Your task to perform on an android device: turn notification dots on Image 0: 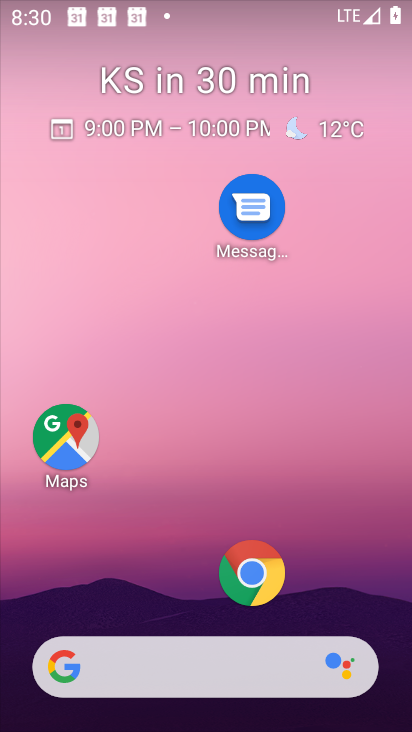
Step 0: drag from (153, 590) to (137, 59)
Your task to perform on an android device: turn notification dots on Image 1: 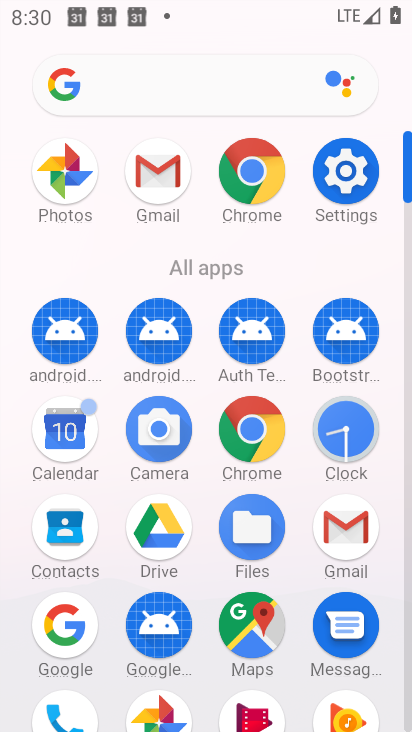
Step 1: click (350, 176)
Your task to perform on an android device: turn notification dots on Image 2: 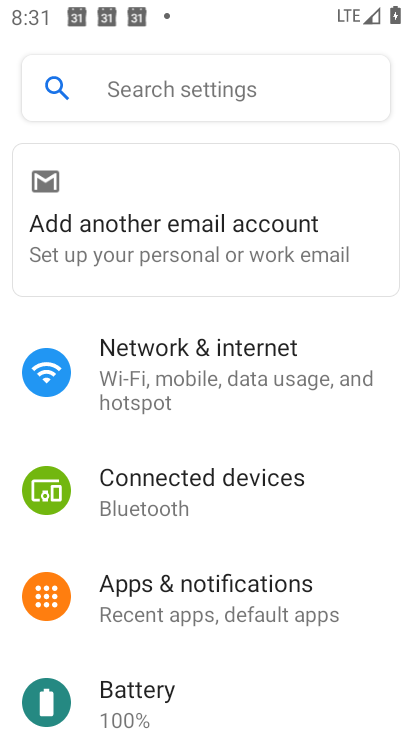
Step 2: drag from (230, 595) to (227, 427)
Your task to perform on an android device: turn notification dots on Image 3: 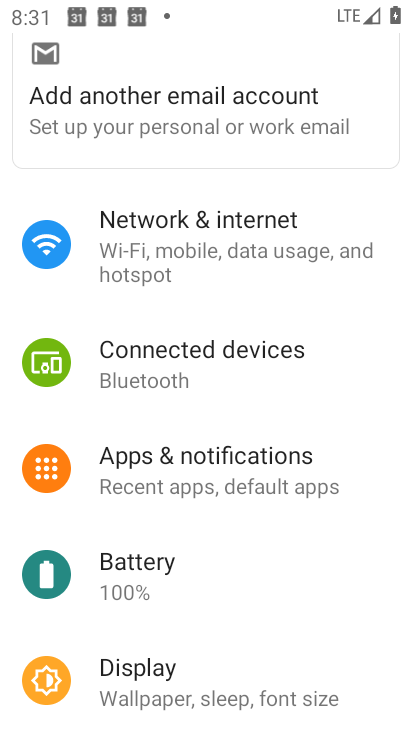
Step 3: click (202, 465)
Your task to perform on an android device: turn notification dots on Image 4: 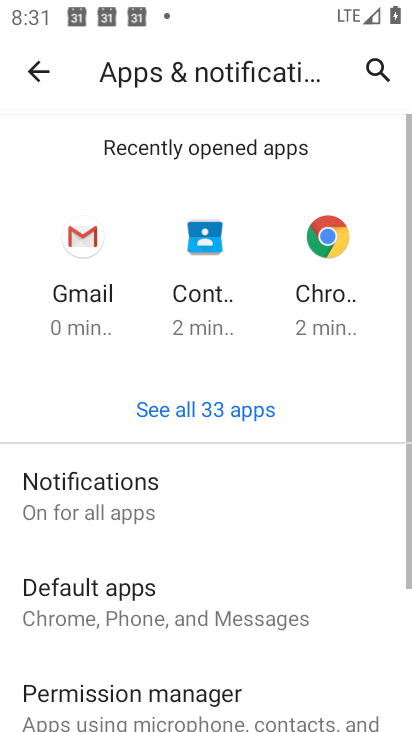
Step 4: drag from (240, 637) to (283, 189)
Your task to perform on an android device: turn notification dots on Image 5: 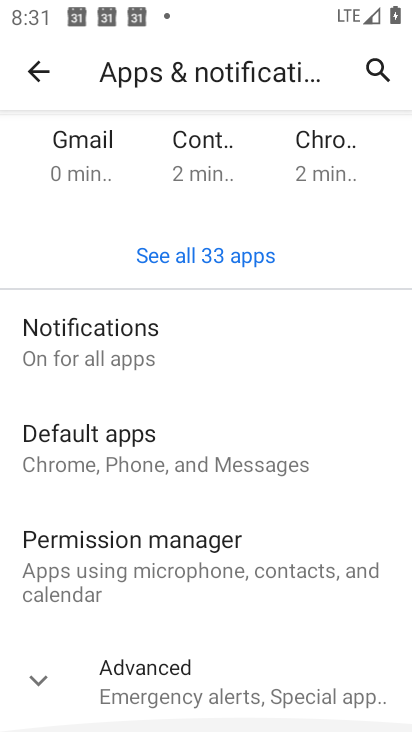
Step 5: click (148, 327)
Your task to perform on an android device: turn notification dots on Image 6: 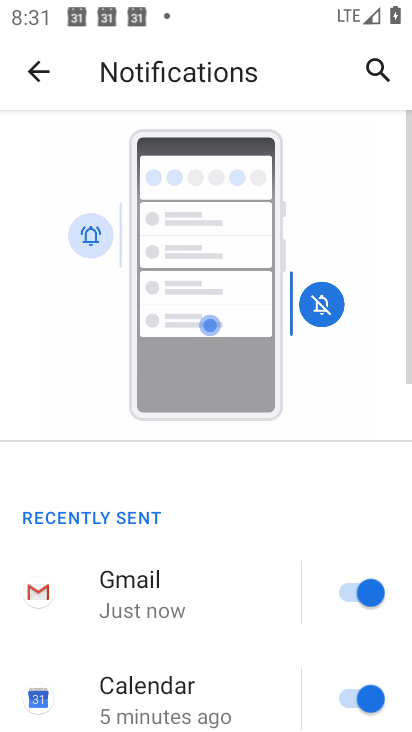
Step 6: drag from (208, 513) to (258, 25)
Your task to perform on an android device: turn notification dots on Image 7: 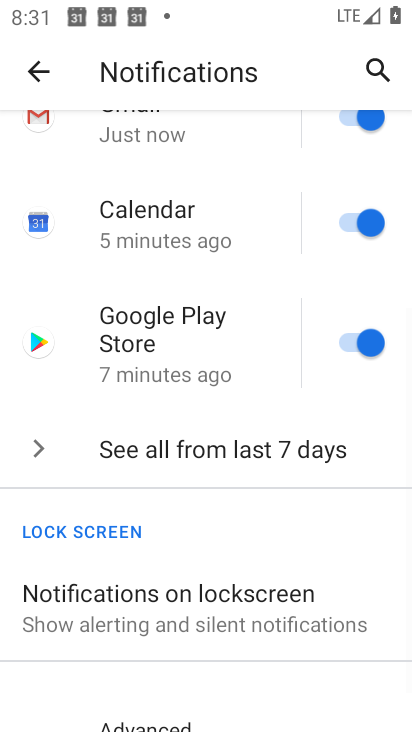
Step 7: drag from (195, 560) to (236, 154)
Your task to perform on an android device: turn notification dots on Image 8: 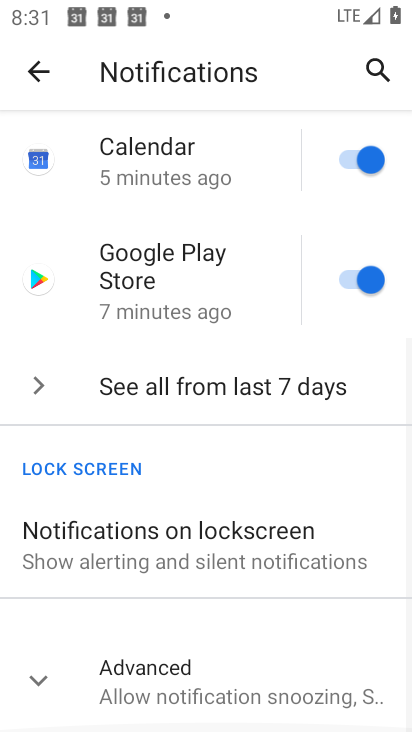
Step 8: click (151, 685)
Your task to perform on an android device: turn notification dots on Image 9: 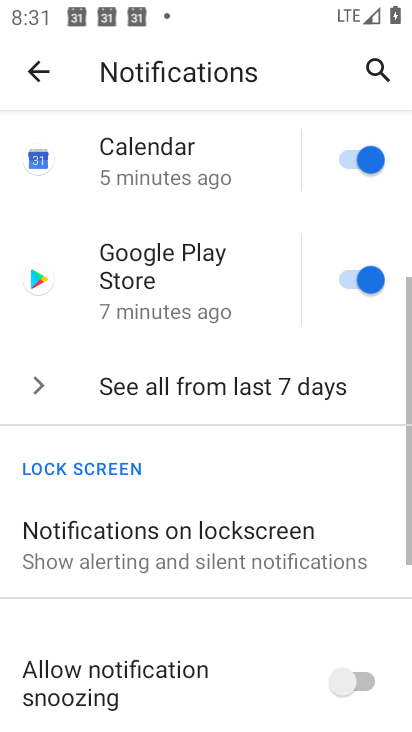
Step 9: task complete